Your task to perform on an android device: turn off smart reply in the gmail app Image 0: 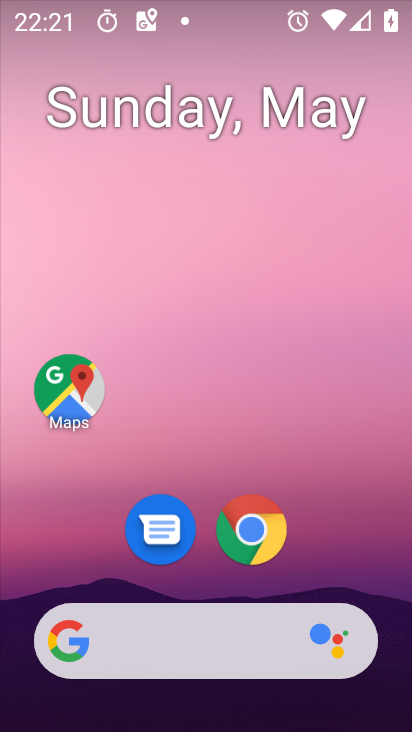
Step 0: drag from (363, 595) to (327, 7)
Your task to perform on an android device: turn off smart reply in the gmail app Image 1: 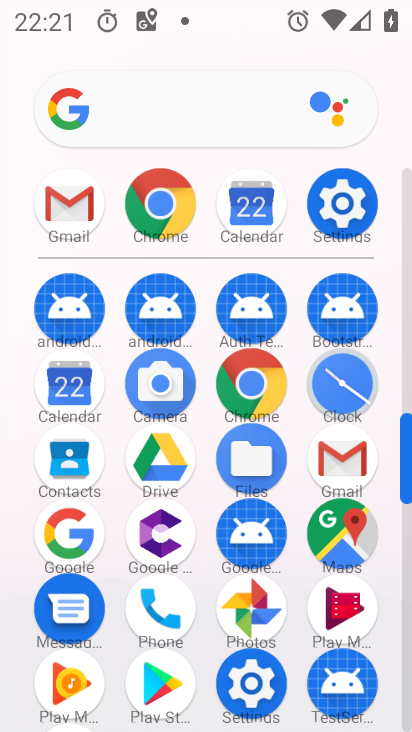
Step 1: click (73, 212)
Your task to perform on an android device: turn off smart reply in the gmail app Image 2: 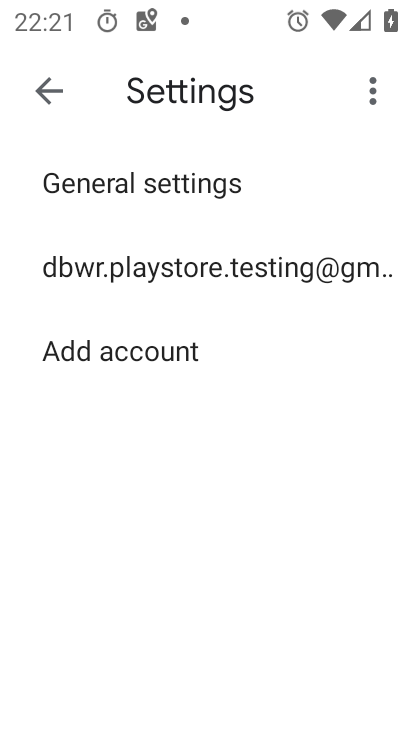
Step 2: click (100, 268)
Your task to perform on an android device: turn off smart reply in the gmail app Image 3: 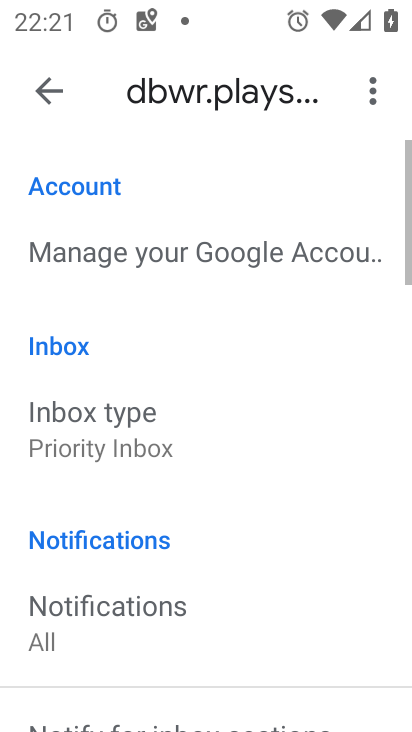
Step 3: drag from (165, 512) to (197, 90)
Your task to perform on an android device: turn off smart reply in the gmail app Image 4: 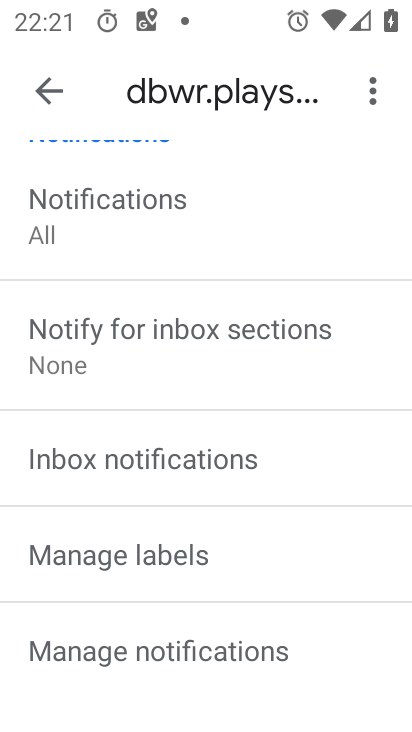
Step 4: drag from (154, 485) to (164, 119)
Your task to perform on an android device: turn off smart reply in the gmail app Image 5: 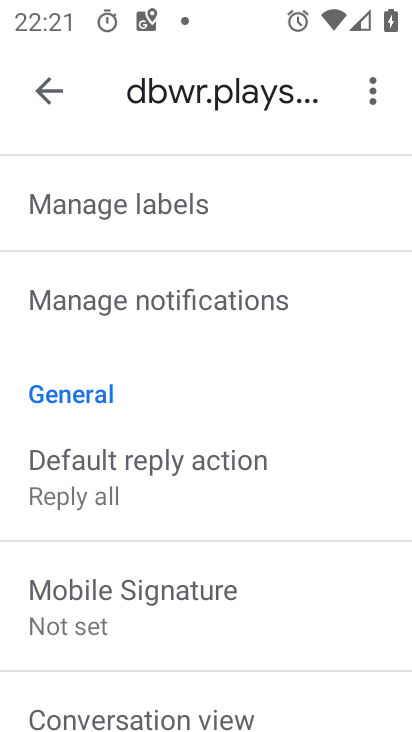
Step 5: drag from (122, 539) to (158, 120)
Your task to perform on an android device: turn off smart reply in the gmail app Image 6: 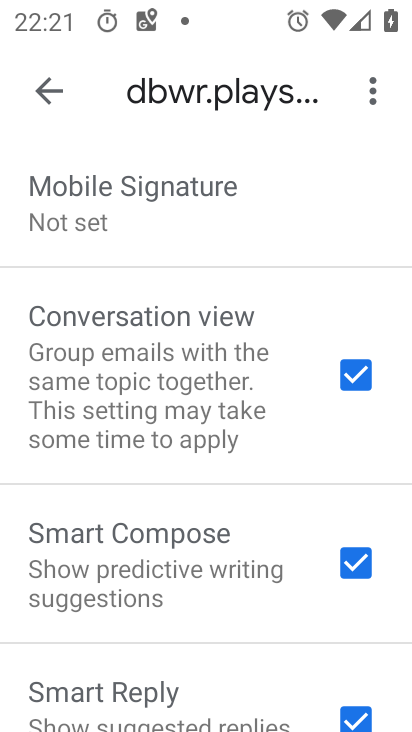
Step 6: drag from (134, 567) to (155, 319)
Your task to perform on an android device: turn off smart reply in the gmail app Image 7: 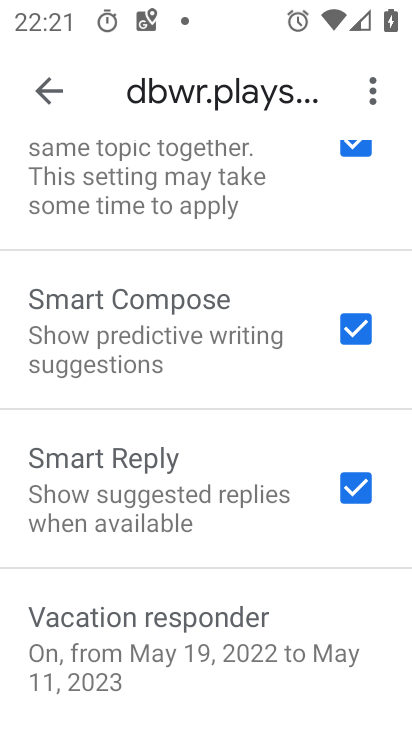
Step 7: click (341, 496)
Your task to perform on an android device: turn off smart reply in the gmail app Image 8: 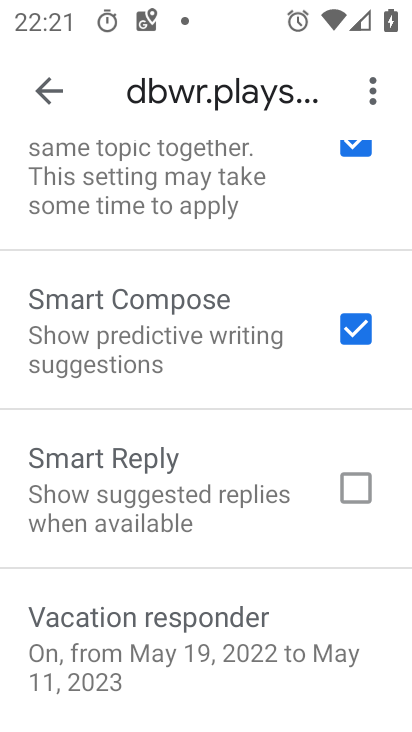
Step 8: task complete